Your task to perform on an android device: Search for Mexican restaurants on Maps Image 0: 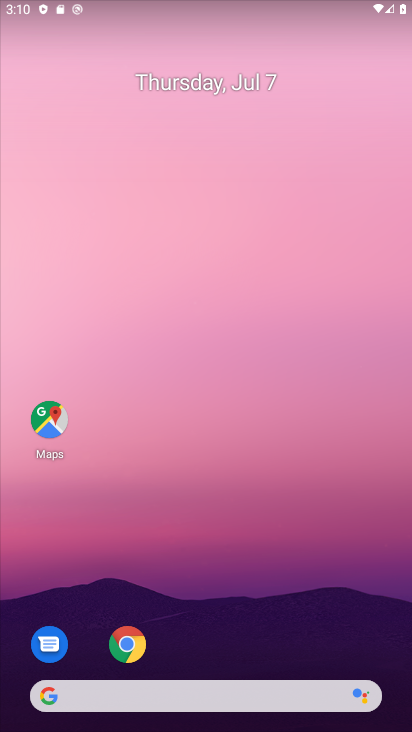
Step 0: click (59, 417)
Your task to perform on an android device: Search for Mexican restaurants on Maps Image 1: 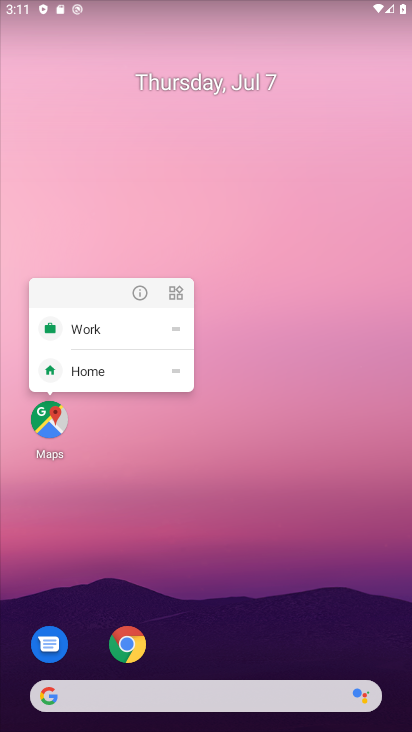
Step 1: click (60, 424)
Your task to perform on an android device: Search for Mexican restaurants on Maps Image 2: 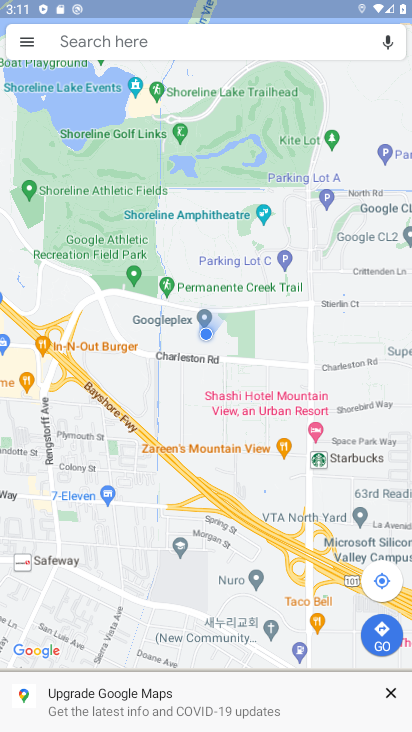
Step 2: click (161, 43)
Your task to perform on an android device: Search for Mexican restaurants on Maps Image 3: 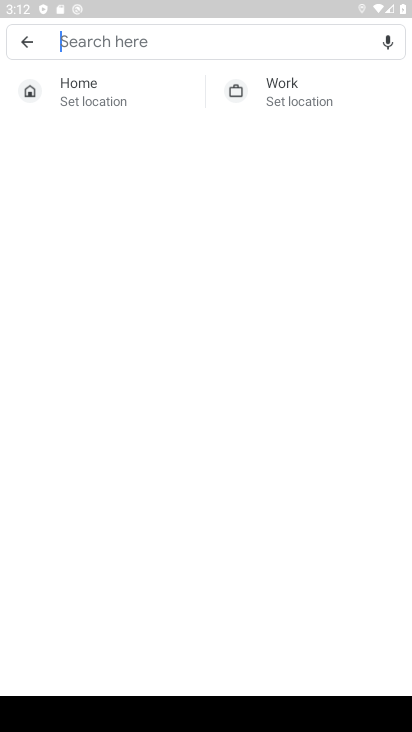
Step 3: type "Mexican restaurants "
Your task to perform on an android device: Search for Mexican restaurants on Maps Image 4: 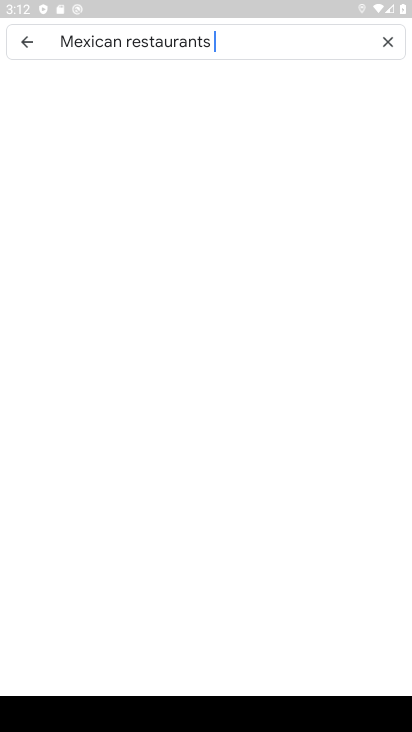
Step 4: type ""
Your task to perform on an android device: Search for Mexican restaurants on Maps Image 5: 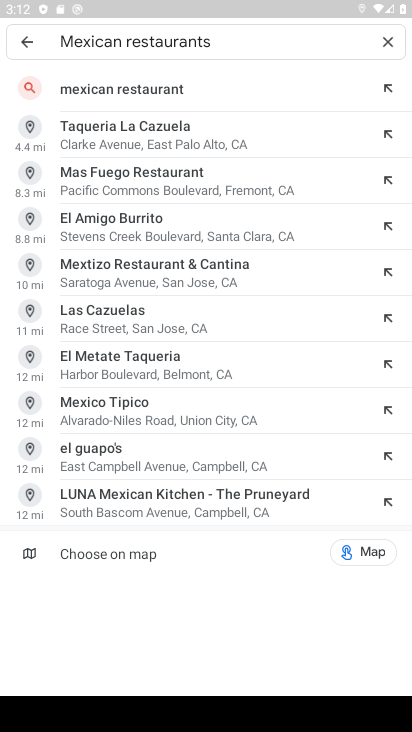
Step 5: click (148, 92)
Your task to perform on an android device: Search for Mexican restaurants on Maps Image 6: 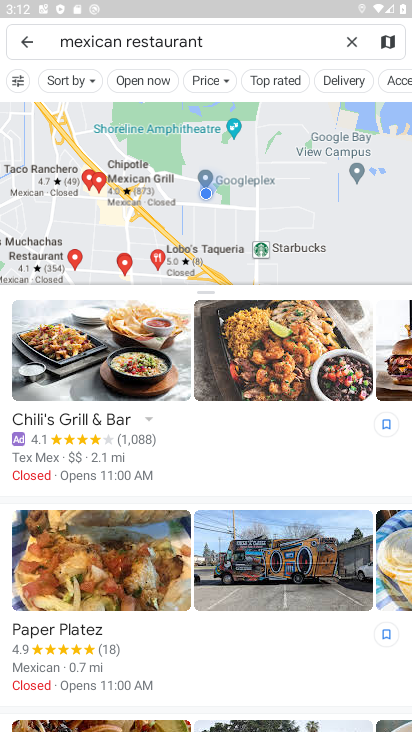
Step 6: task complete